Your task to perform on an android device: Clear the cart on target. Search for razer blade on target, select the first entry, and add it to the cart. Image 0: 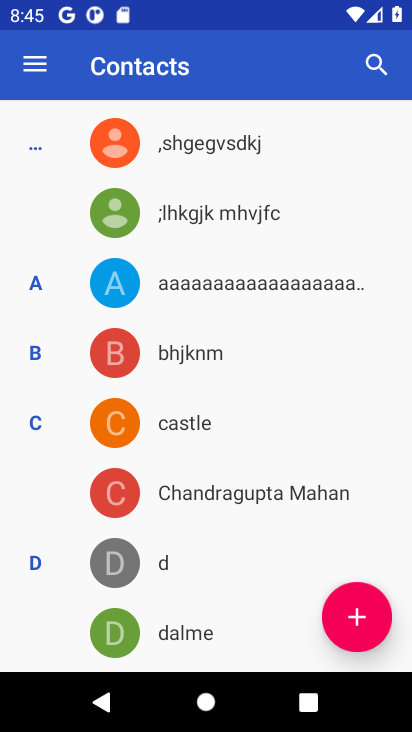
Step 0: press home button
Your task to perform on an android device: Clear the cart on target. Search for razer blade on target, select the first entry, and add it to the cart. Image 1: 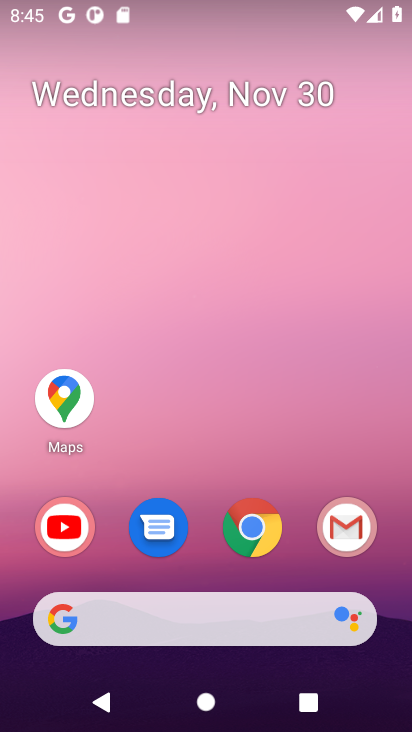
Step 1: click (248, 518)
Your task to perform on an android device: Clear the cart on target. Search for razer blade on target, select the first entry, and add it to the cart. Image 2: 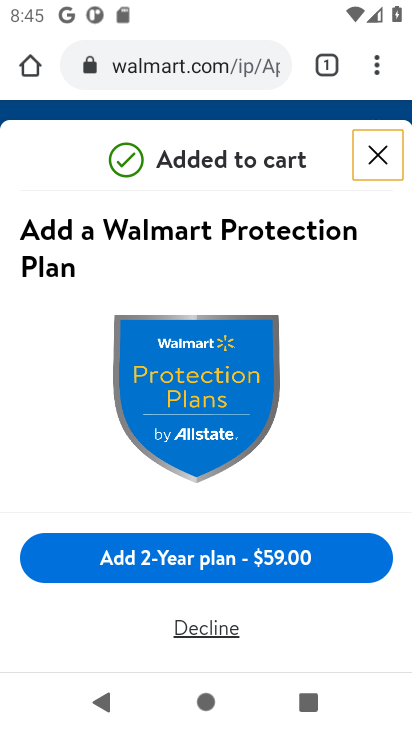
Step 2: click (253, 60)
Your task to perform on an android device: Clear the cart on target. Search for razer blade on target, select the first entry, and add it to the cart. Image 3: 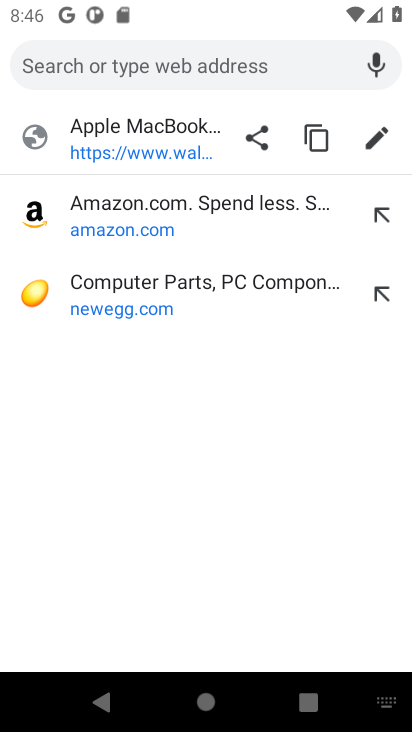
Step 3: type "target"
Your task to perform on an android device: Clear the cart on target. Search for razer blade on target, select the first entry, and add it to the cart. Image 4: 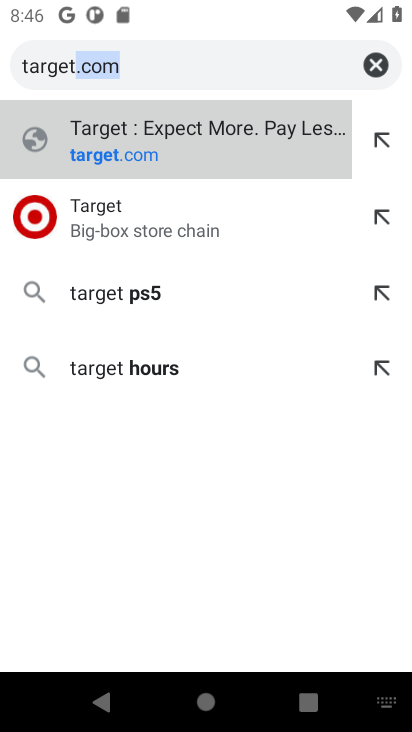
Step 4: press enter
Your task to perform on an android device: Clear the cart on target. Search for razer blade on target, select the first entry, and add it to the cart. Image 5: 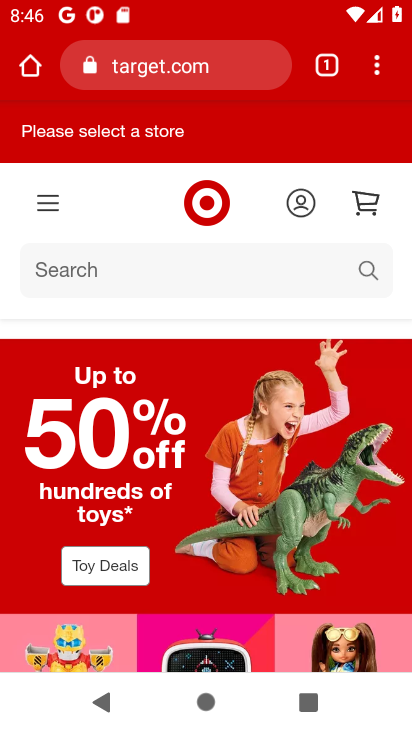
Step 5: click (371, 209)
Your task to perform on an android device: Clear the cart on target. Search for razer blade on target, select the first entry, and add it to the cart. Image 6: 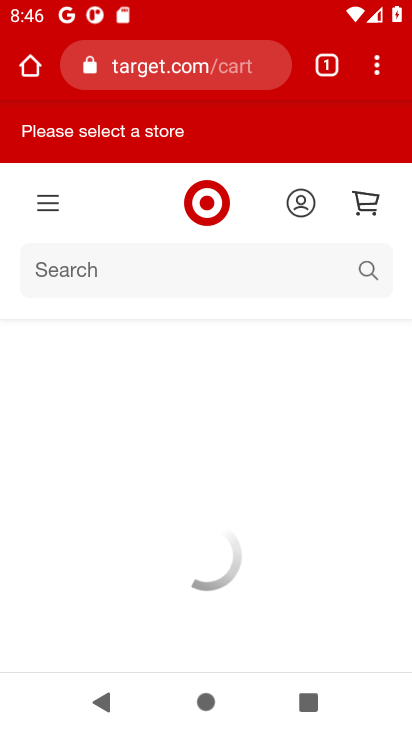
Step 6: click (357, 263)
Your task to perform on an android device: Clear the cart on target. Search for razer blade on target, select the first entry, and add it to the cart. Image 7: 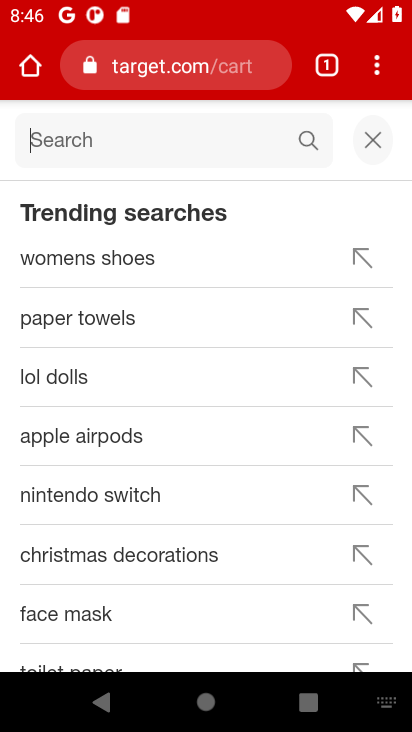
Step 7: type "razer blade"
Your task to perform on an android device: Clear the cart on target. Search for razer blade on target, select the first entry, and add it to the cart. Image 8: 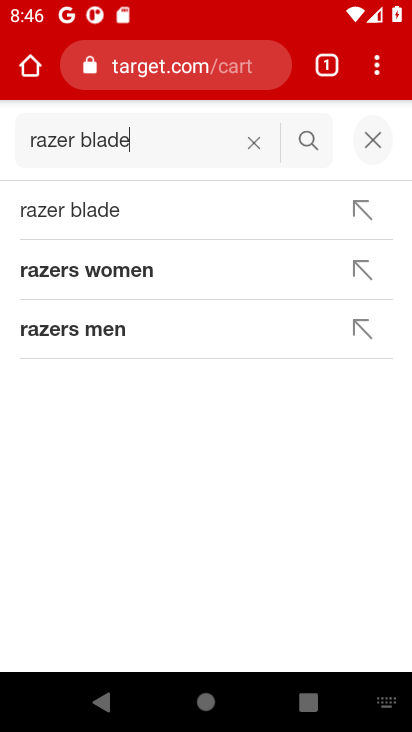
Step 8: press enter
Your task to perform on an android device: Clear the cart on target. Search for razer blade on target, select the first entry, and add it to the cart. Image 9: 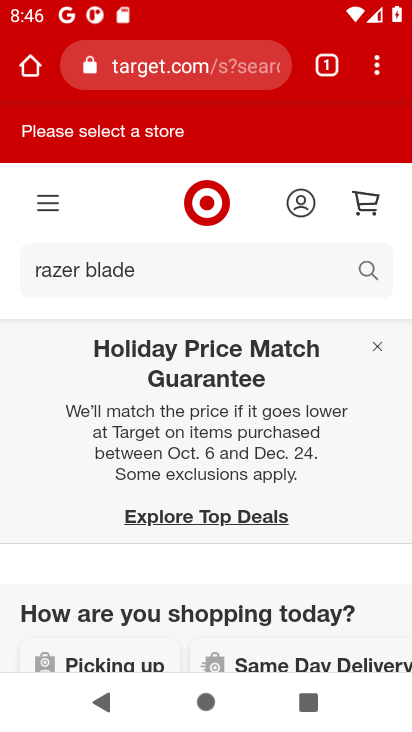
Step 9: task complete